Your task to perform on an android device: turn off location Image 0: 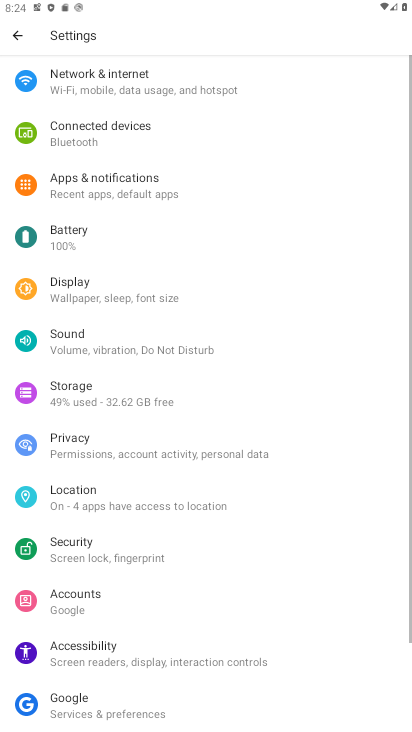
Step 0: press home button
Your task to perform on an android device: turn off location Image 1: 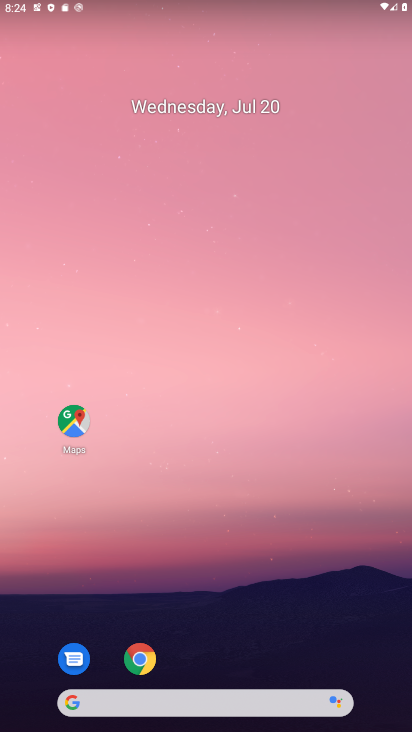
Step 1: drag from (279, 651) to (318, 183)
Your task to perform on an android device: turn off location Image 2: 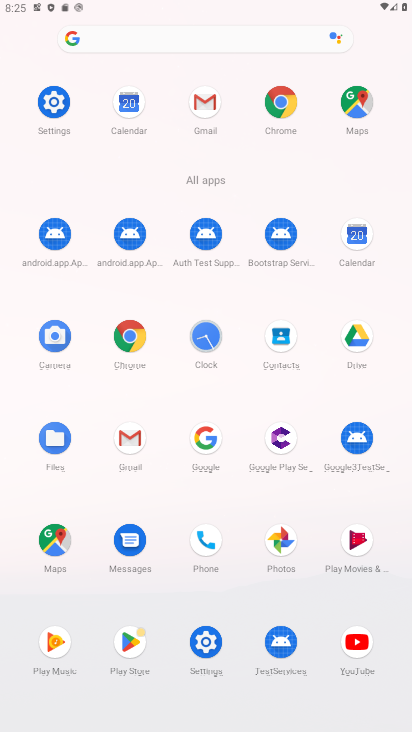
Step 2: click (204, 636)
Your task to perform on an android device: turn off location Image 3: 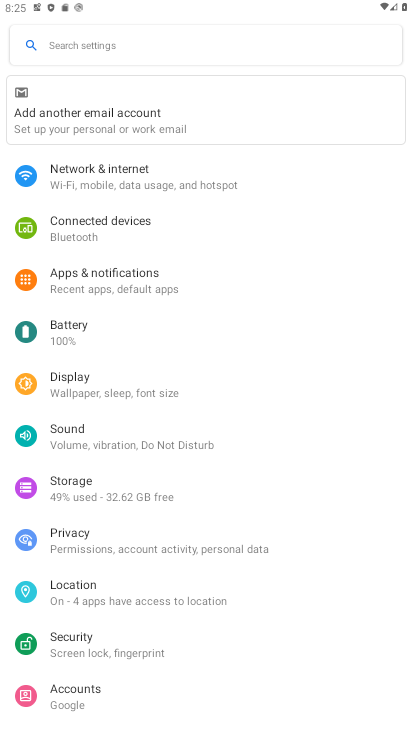
Step 3: click (68, 596)
Your task to perform on an android device: turn off location Image 4: 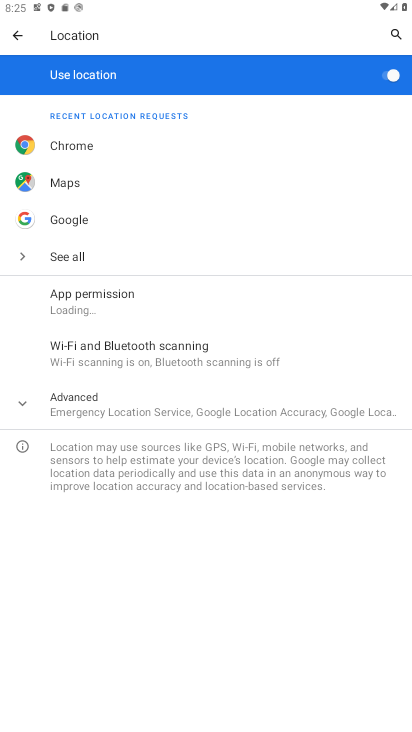
Step 4: click (292, 77)
Your task to perform on an android device: turn off location Image 5: 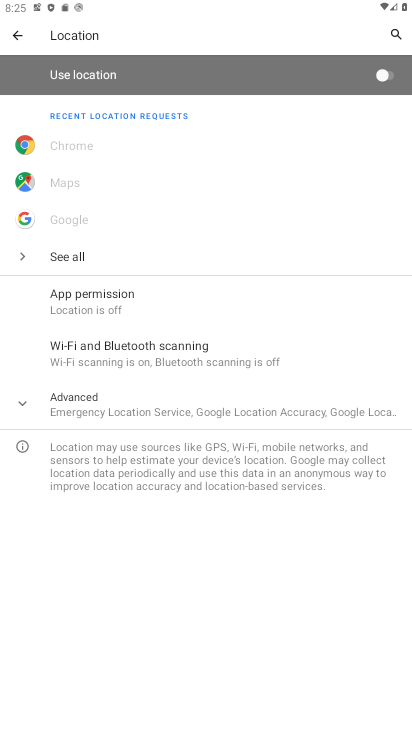
Step 5: task complete